Your task to perform on an android device: When is my next appointment? Image 0: 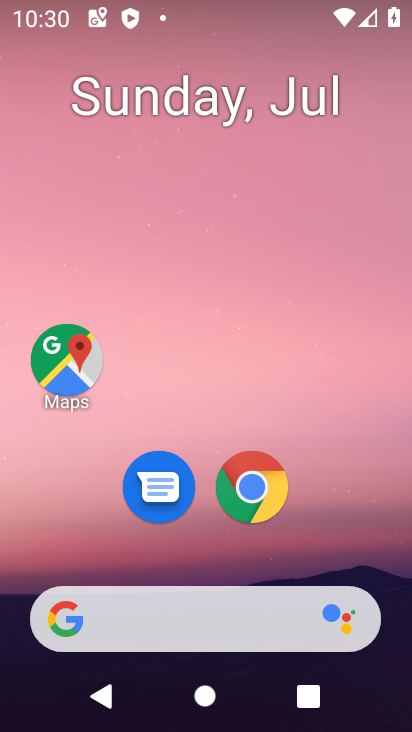
Step 0: drag from (172, 563) to (257, 0)
Your task to perform on an android device: When is my next appointment? Image 1: 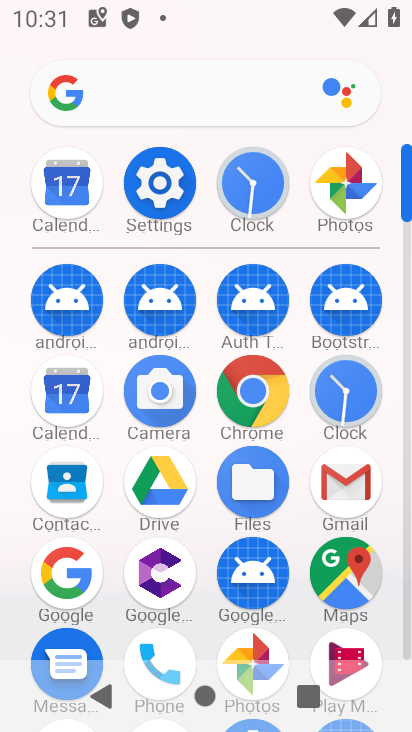
Step 1: click (72, 381)
Your task to perform on an android device: When is my next appointment? Image 2: 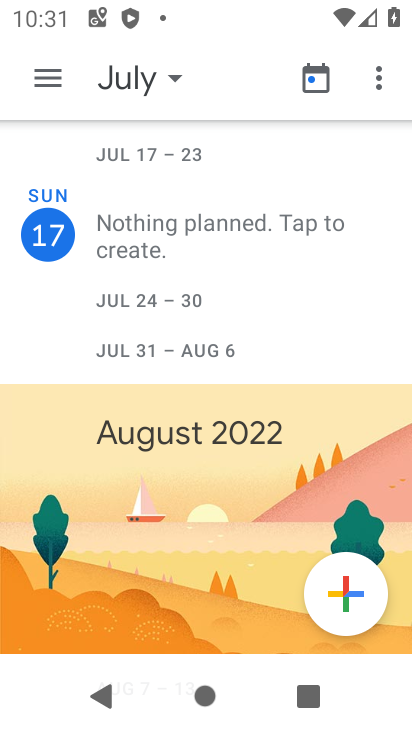
Step 2: task complete